Your task to perform on an android device: What's on my calendar today? Image 0: 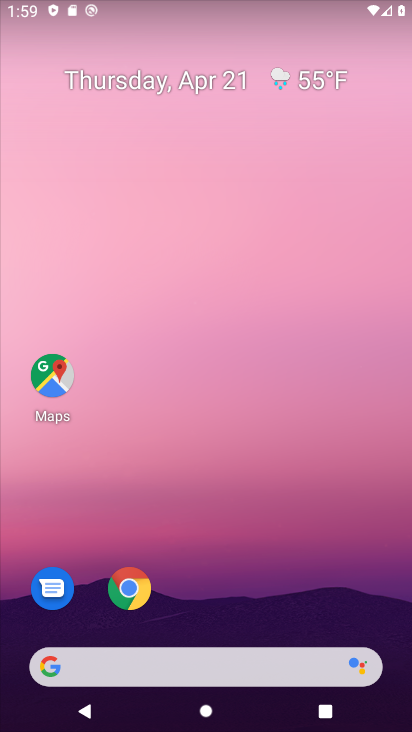
Step 0: drag from (263, 445) to (333, 14)
Your task to perform on an android device: What's on my calendar today? Image 1: 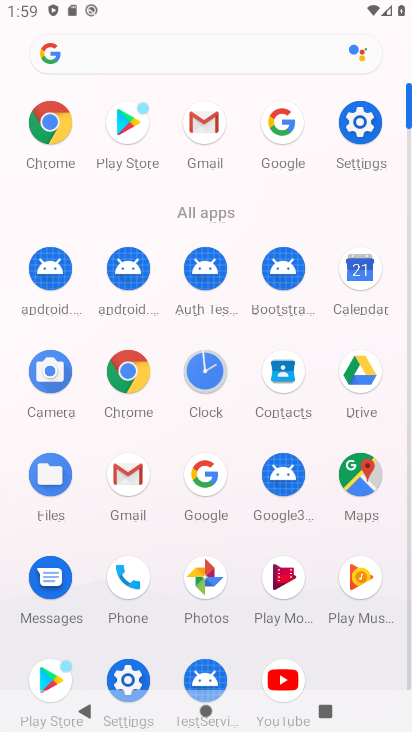
Step 1: click (345, 255)
Your task to perform on an android device: What's on my calendar today? Image 2: 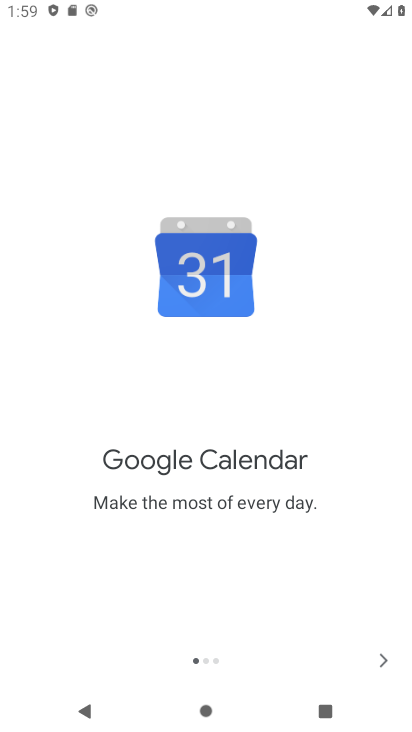
Step 2: click (388, 661)
Your task to perform on an android device: What's on my calendar today? Image 3: 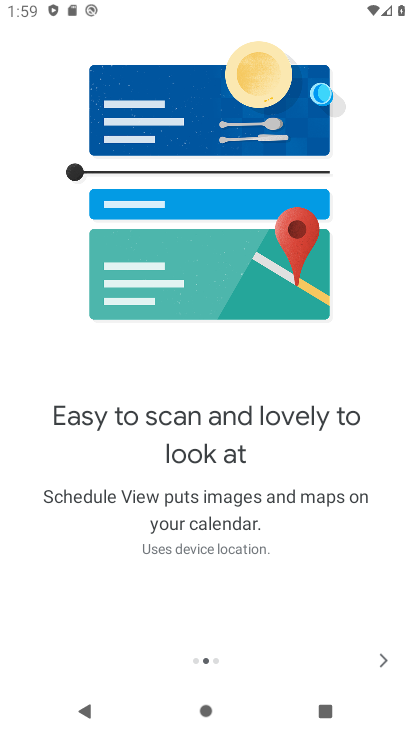
Step 3: click (385, 661)
Your task to perform on an android device: What's on my calendar today? Image 4: 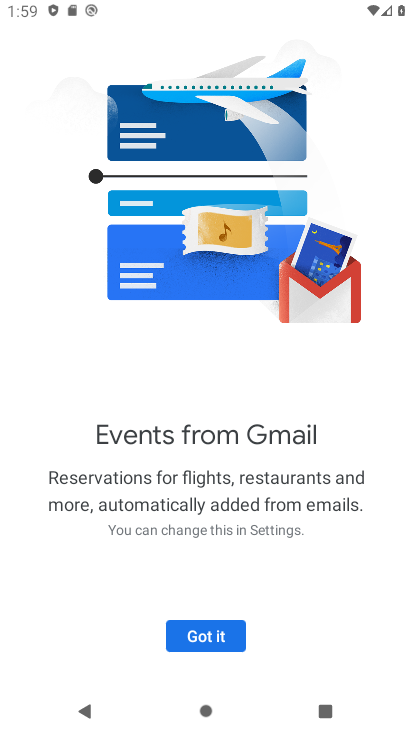
Step 4: click (210, 622)
Your task to perform on an android device: What's on my calendar today? Image 5: 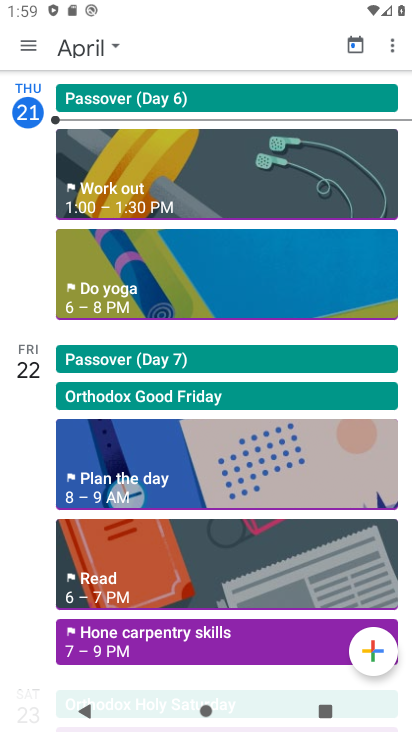
Step 5: click (88, 40)
Your task to perform on an android device: What's on my calendar today? Image 6: 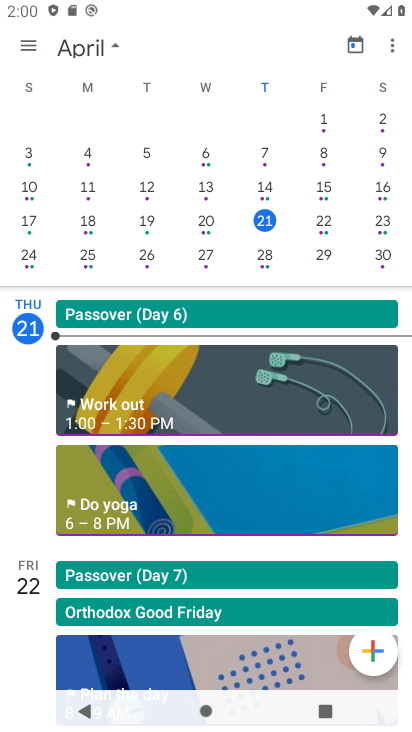
Step 6: task complete